Your task to perform on an android device: turn off data saver in the chrome app Image 0: 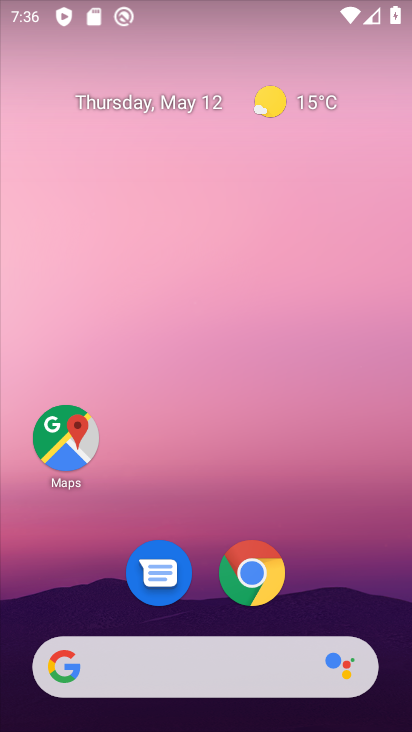
Step 0: click (266, 575)
Your task to perform on an android device: turn off data saver in the chrome app Image 1: 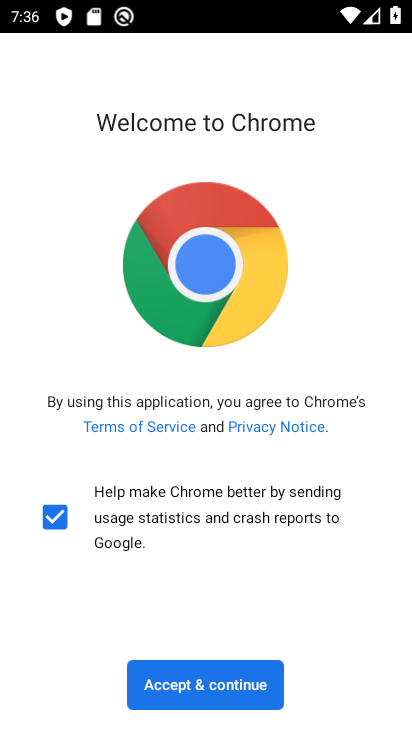
Step 1: click (194, 705)
Your task to perform on an android device: turn off data saver in the chrome app Image 2: 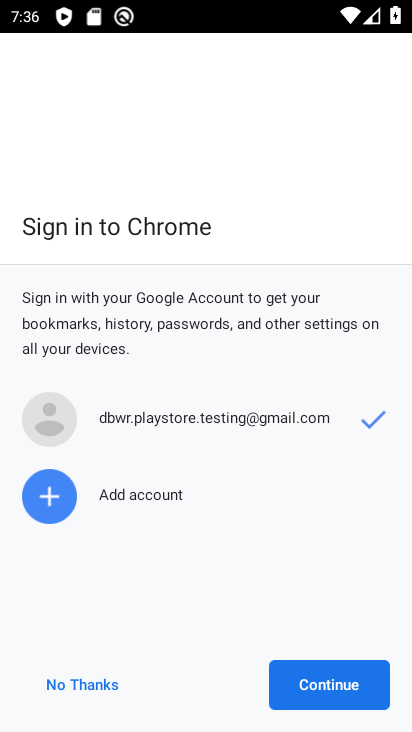
Step 2: click (319, 683)
Your task to perform on an android device: turn off data saver in the chrome app Image 3: 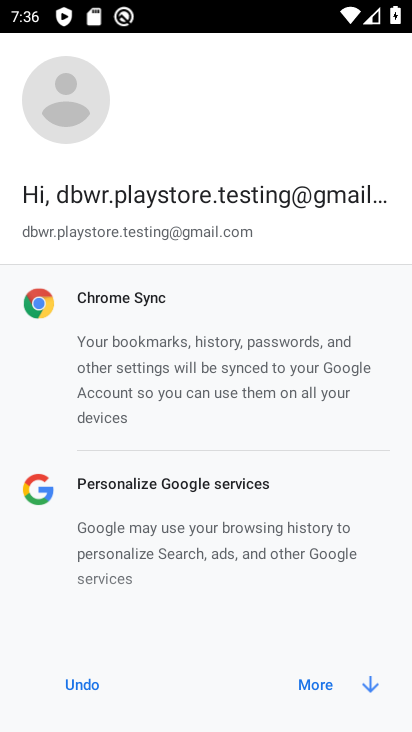
Step 3: click (347, 683)
Your task to perform on an android device: turn off data saver in the chrome app Image 4: 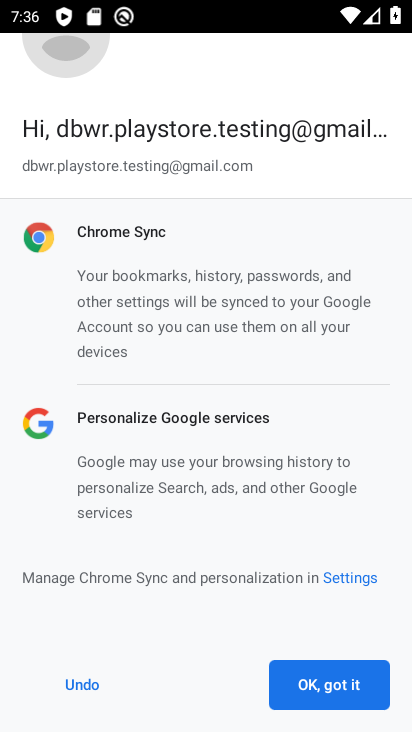
Step 4: click (345, 687)
Your task to perform on an android device: turn off data saver in the chrome app Image 5: 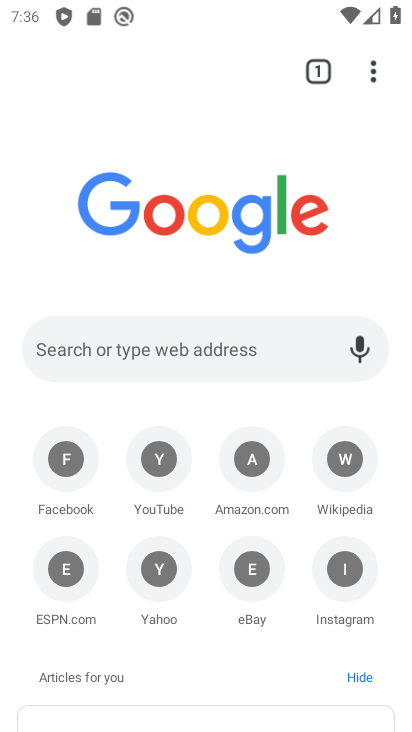
Step 5: click (374, 67)
Your task to perform on an android device: turn off data saver in the chrome app Image 6: 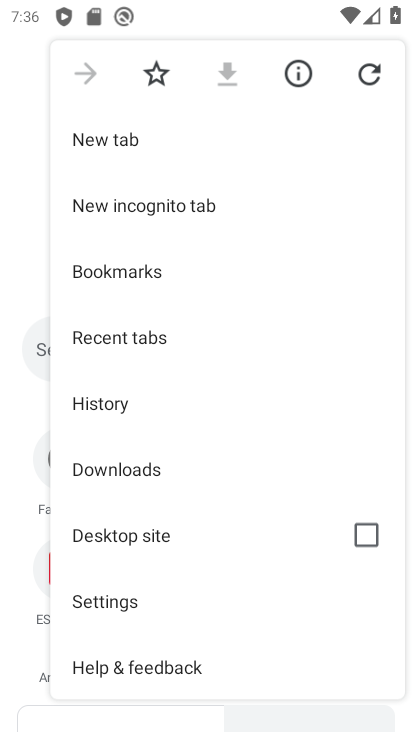
Step 6: click (121, 599)
Your task to perform on an android device: turn off data saver in the chrome app Image 7: 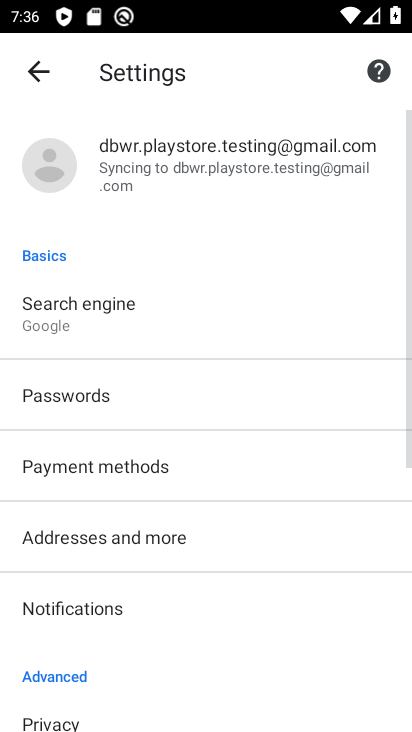
Step 7: drag from (325, 505) to (252, 6)
Your task to perform on an android device: turn off data saver in the chrome app Image 8: 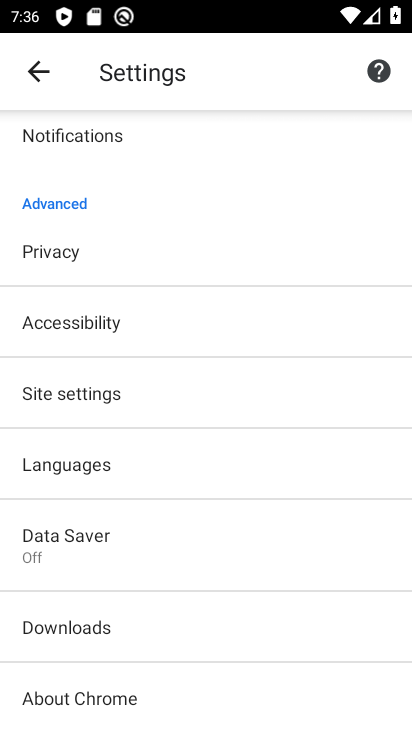
Step 8: click (55, 536)
Your task to perform on an android device: turn off data saver in the chrome app Image 9: 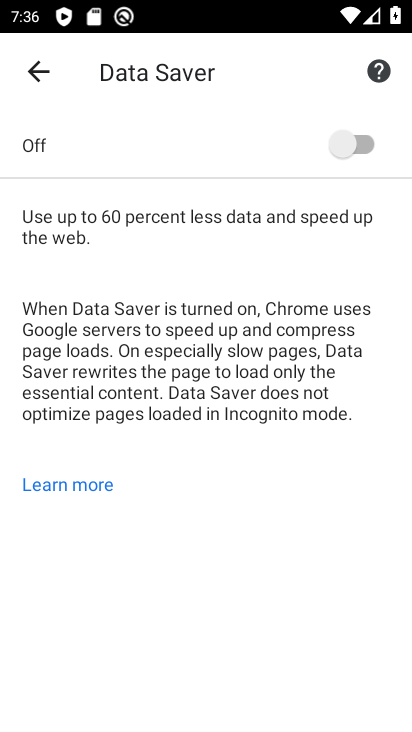
Step 9: task complete